Your task to perform on an android device: Go to Google Image 0: 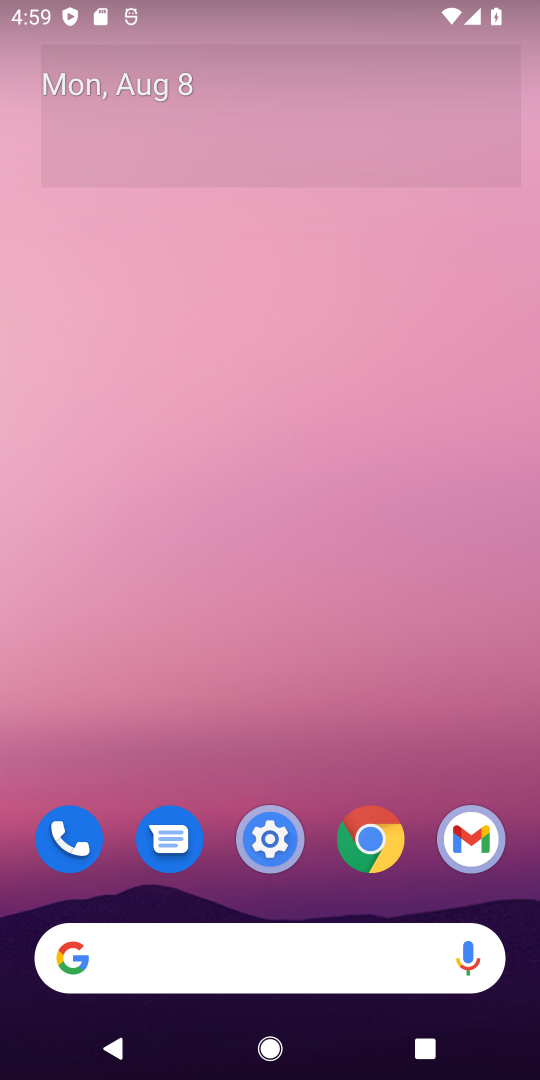
Step 0: click (66, 953)
Your task to perform on an android device: Go to Google Image 1: 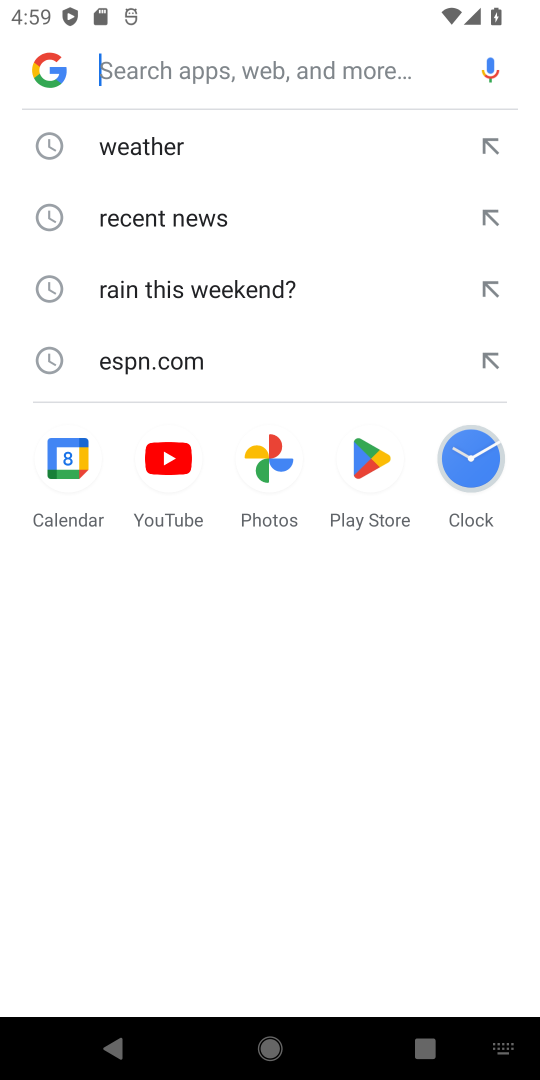
Step 1: click (52, 61)
Your task to perform on an android device: Go to Google Image 2: 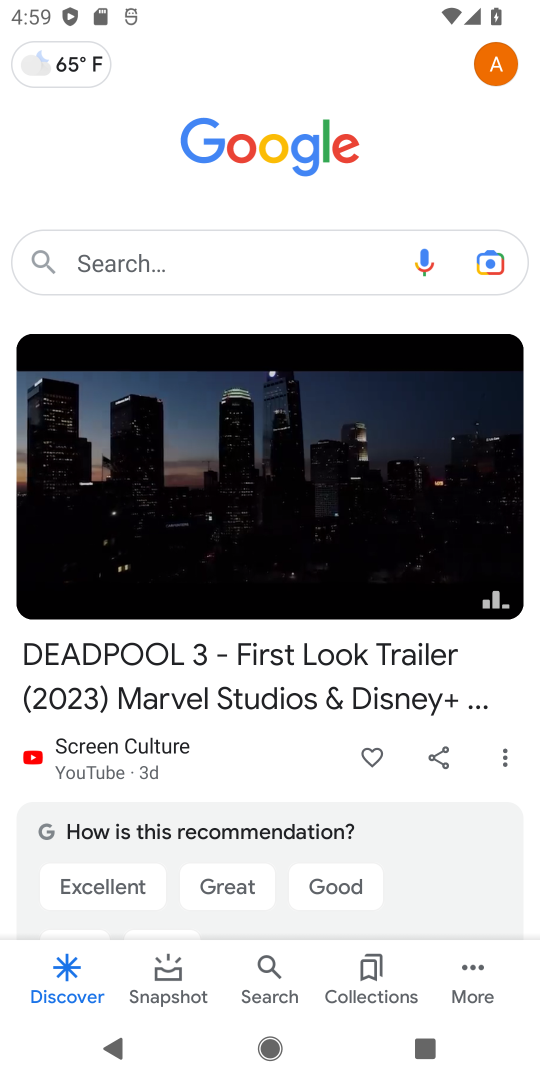
Step 2: task complete